Your task to perform on an android device: When is my next appointment? Image 0: 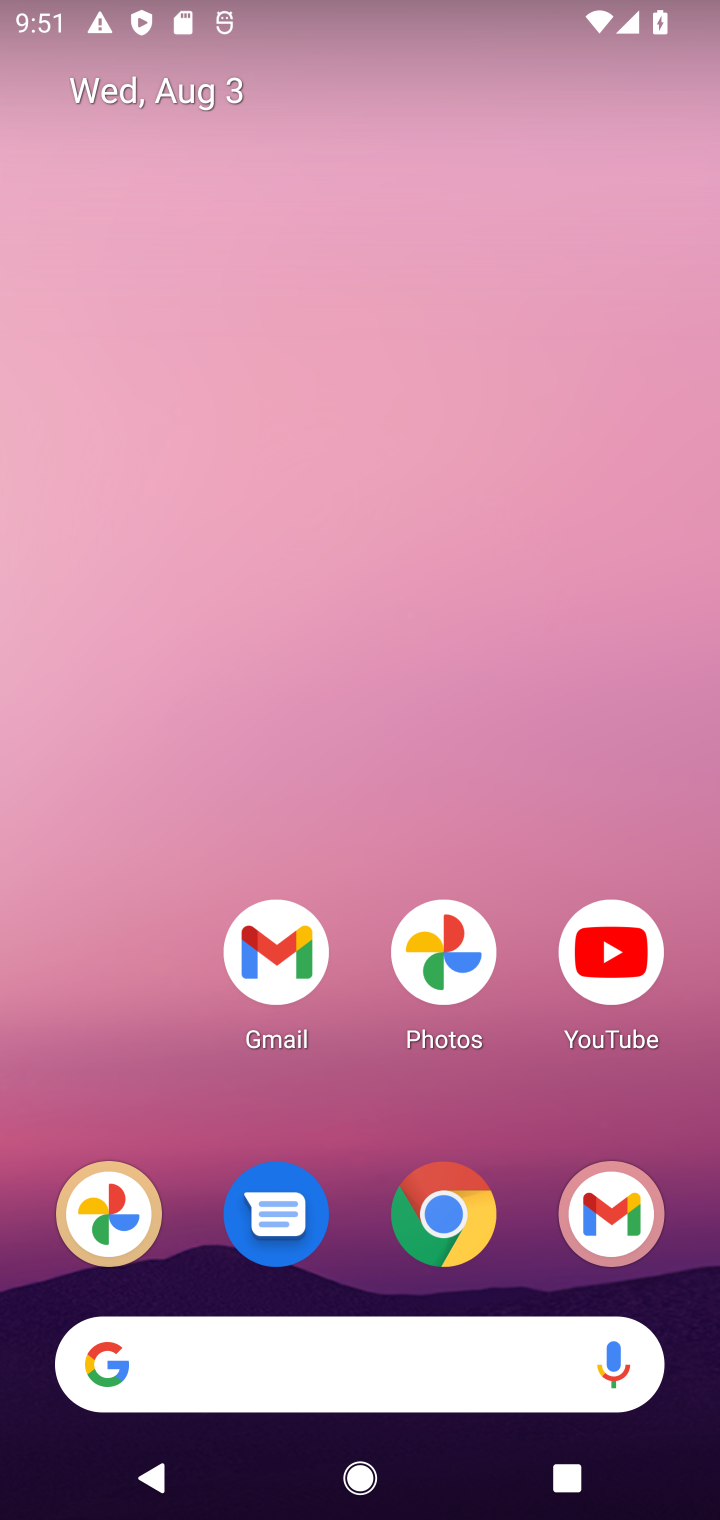
Step 0: drag from (542, 1106) to (622, 94)
Your task to perform on an android device: When is my next appointment? Image 1: 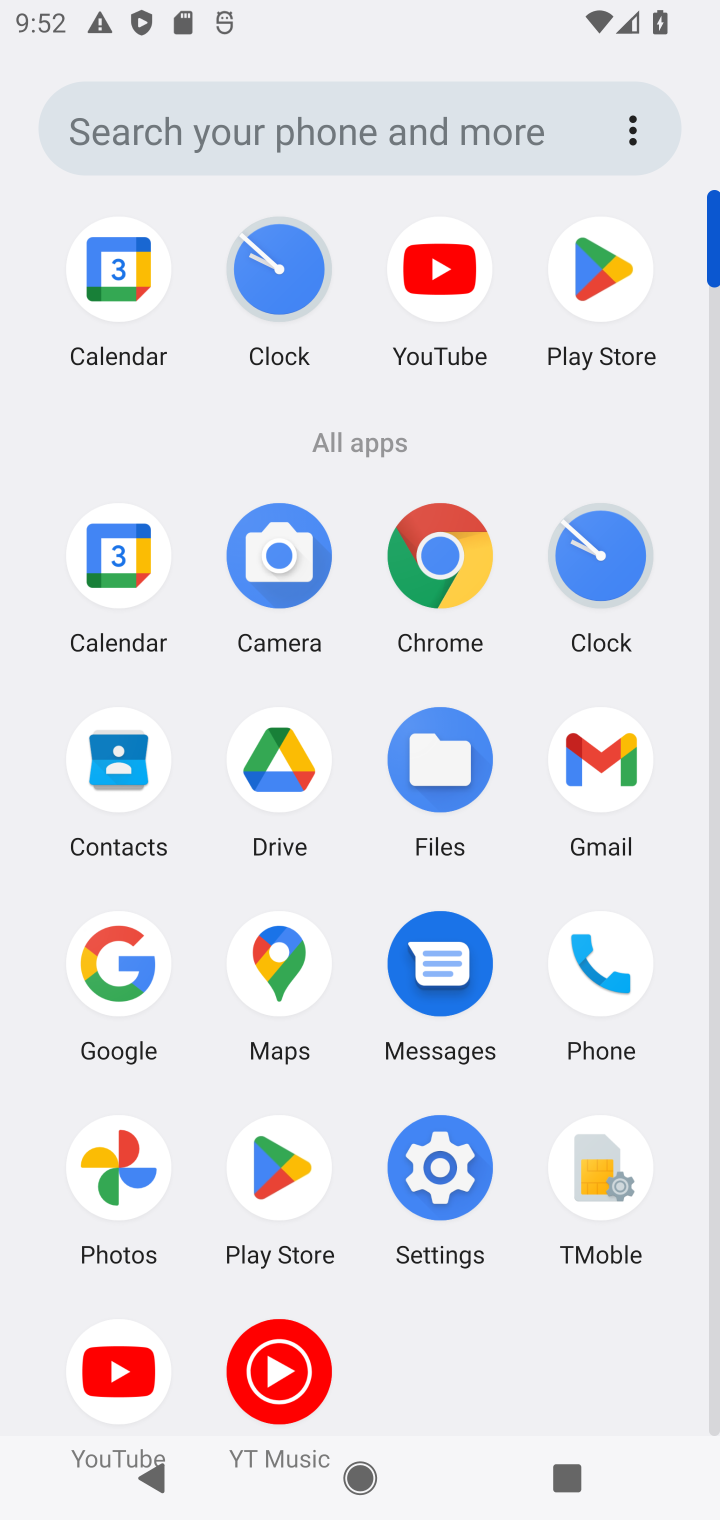
Step 1: click (110, 295)
Your task to perform on an android device: When is my next appointment? Image 2: 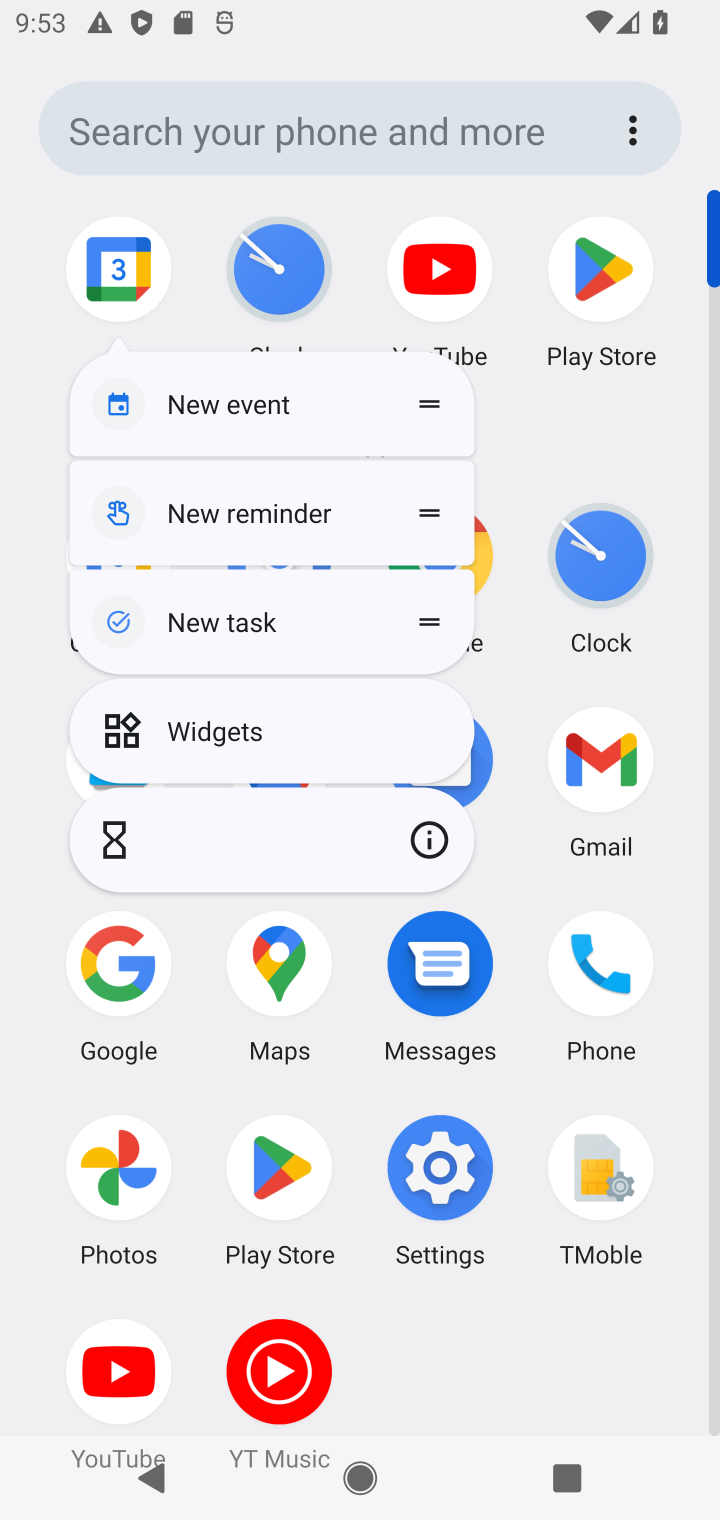
Step 2: click (110, 295)
Your task to perform on an android device: When is my next appointment? Image 3: 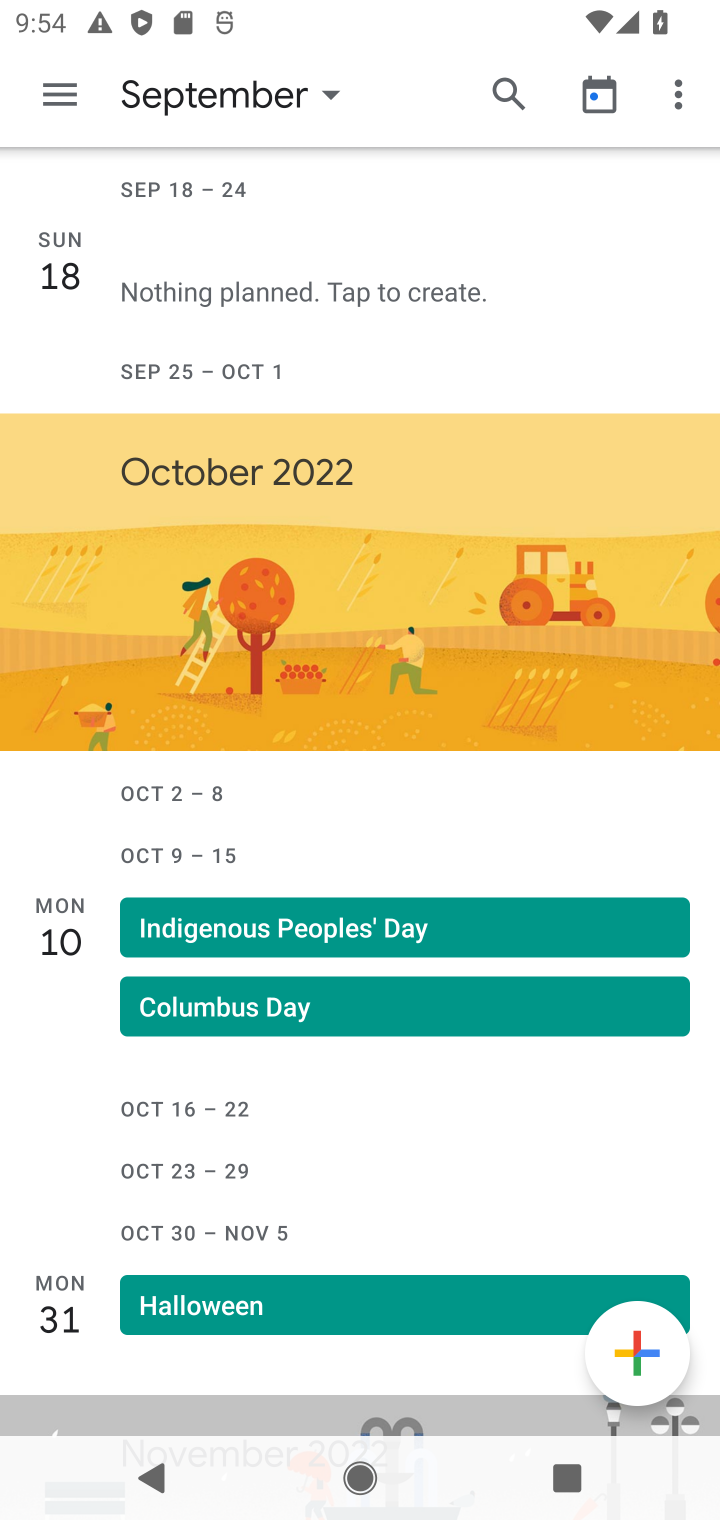
Step 3: click (290, 114)
Your task to perform on an android device: When is my next appointment? Image 4: 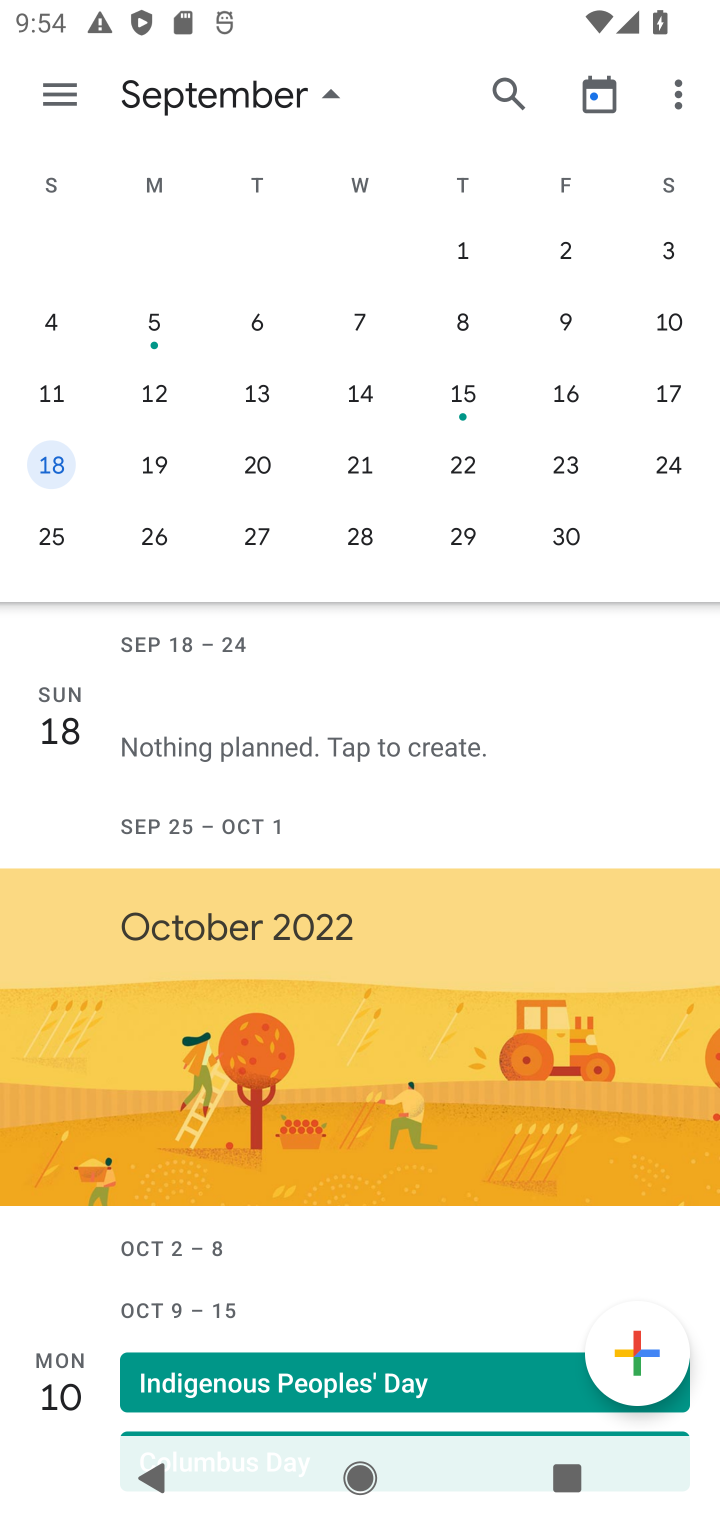
Step 4: drag from (118, 356) to (714, 263)
Your task to perform on an android device: When is my next appointment? Image 5: 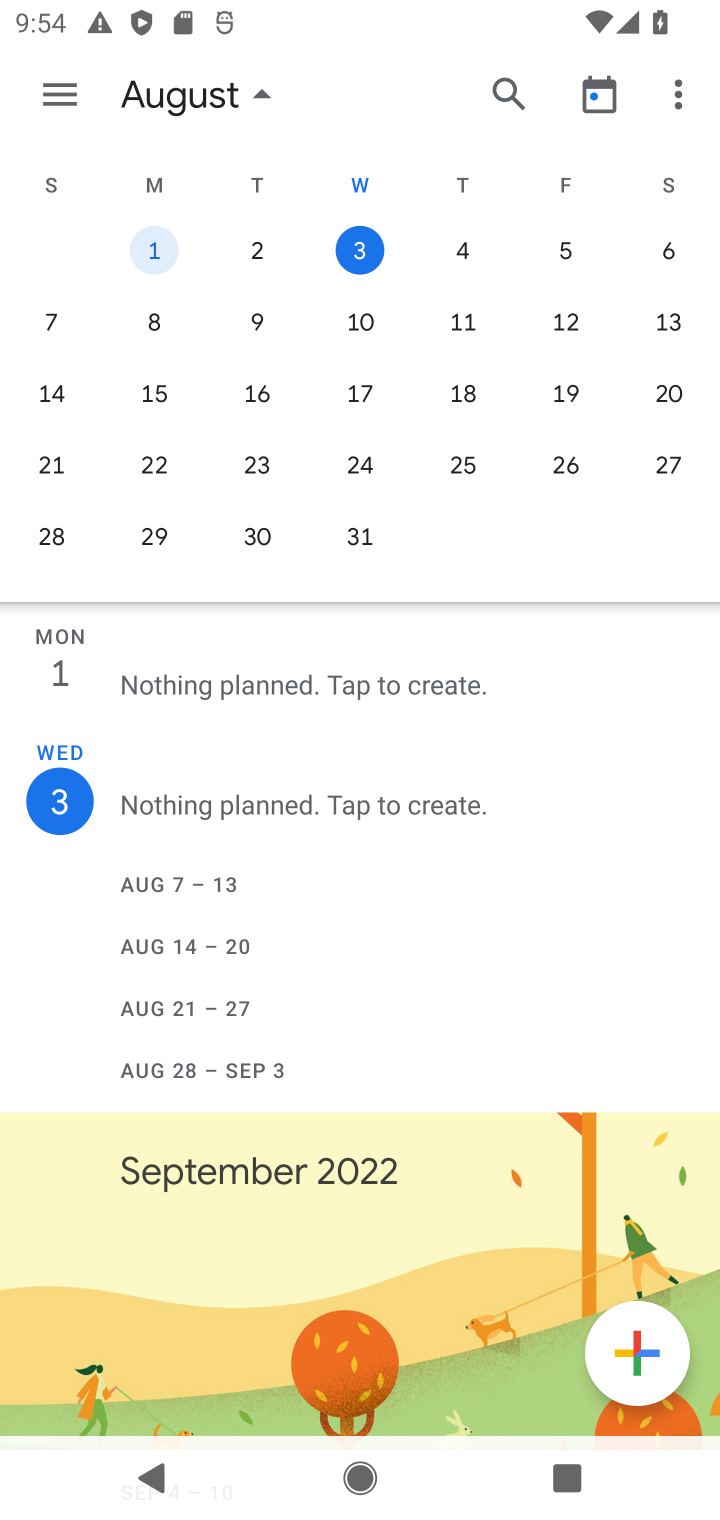
Step 5: click (358, 242)
Your task to perform on an android device: When is my next appointment? Image 6: 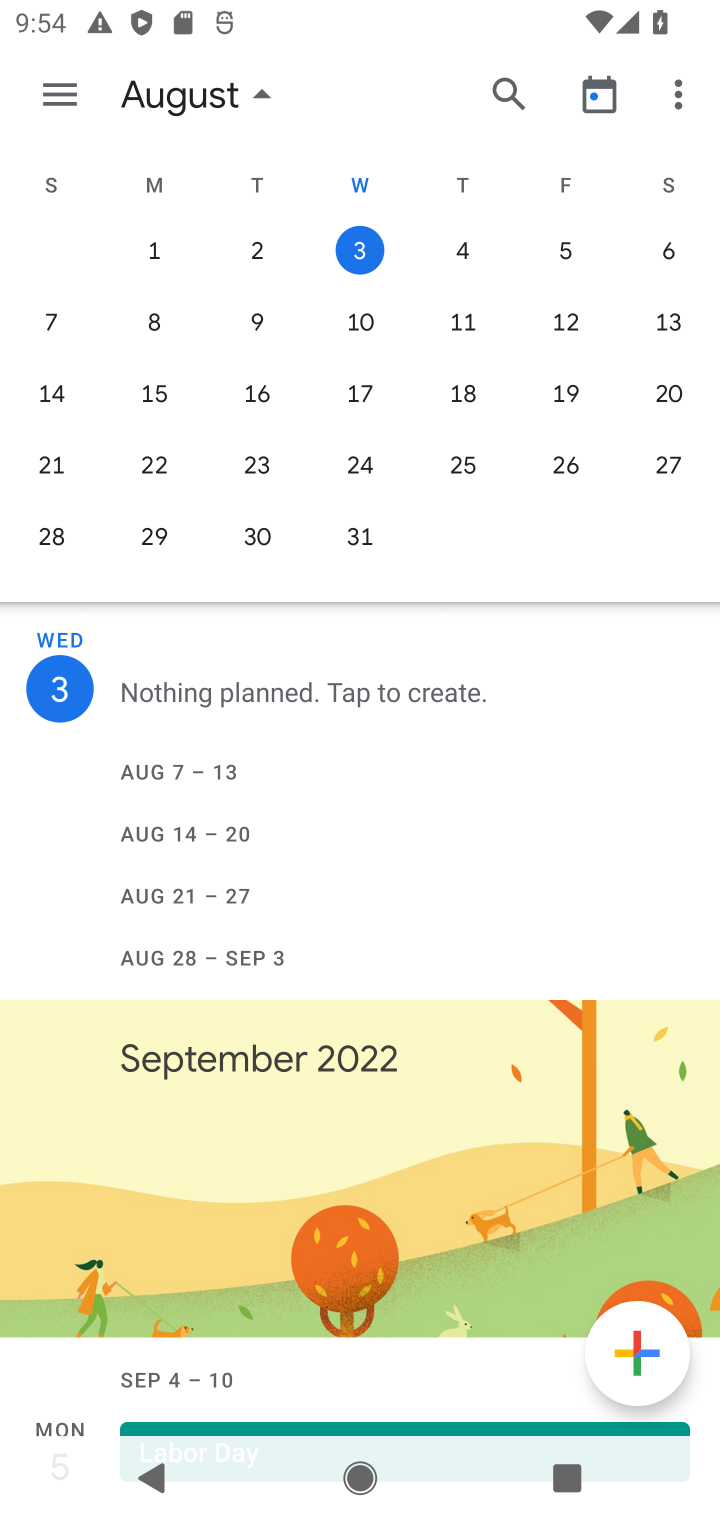
Step 6: task complete